Your task to perform on an android device: Set the phone to "Do not disturb". Image 0: 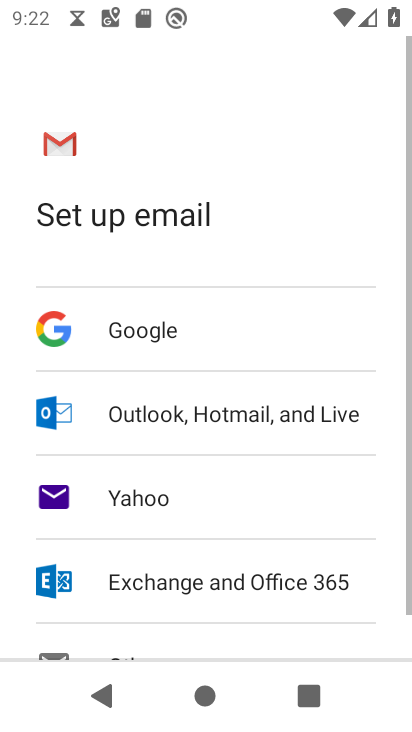
Step 0: press home button
Your task to perform on an android device: Set the phone to "Do not disturb". Image 1: 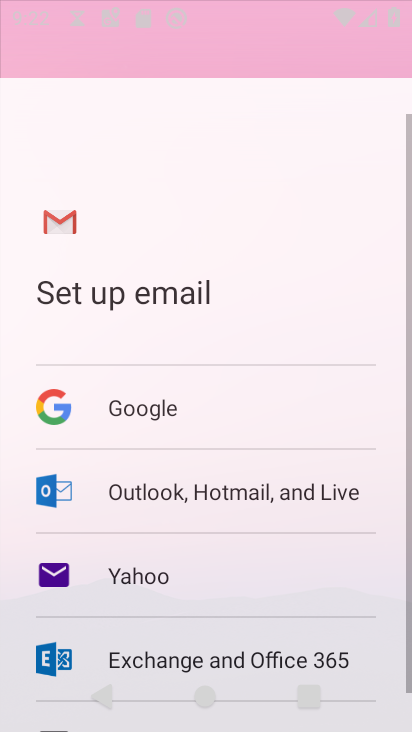
Step 1: drag from (173, 5) to (177, 537)
Your task to perform on an android device: Set the phone to "Do not disturb". Image 2: 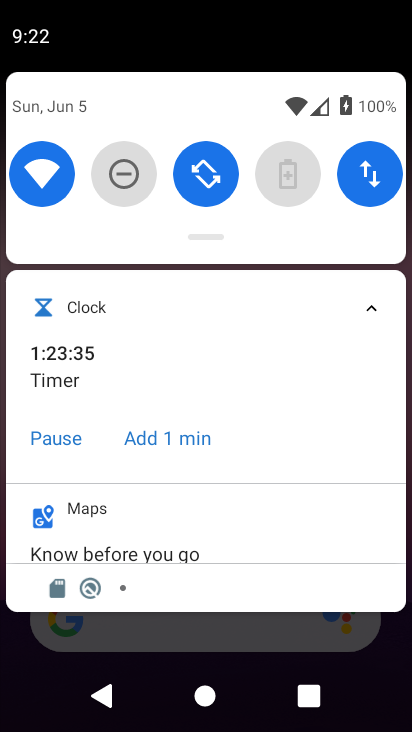
Step 2: click (124, 165)
Your task to perform on an android device: Set the phone to "Do not disturb". Image 3: 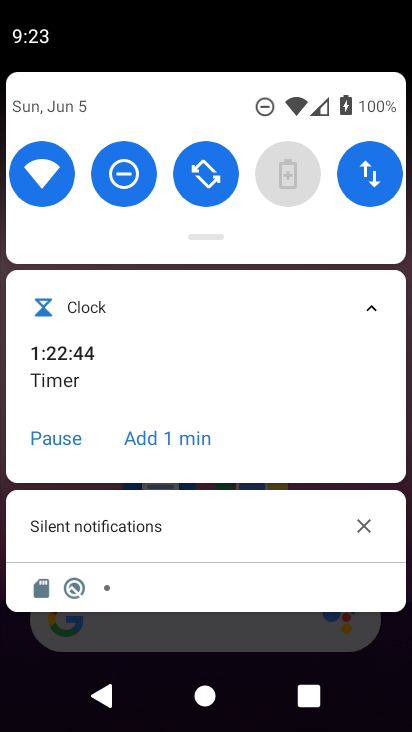
Step 3: task complete